Your task to perform on an android device: turn on sleep mode Image 0: 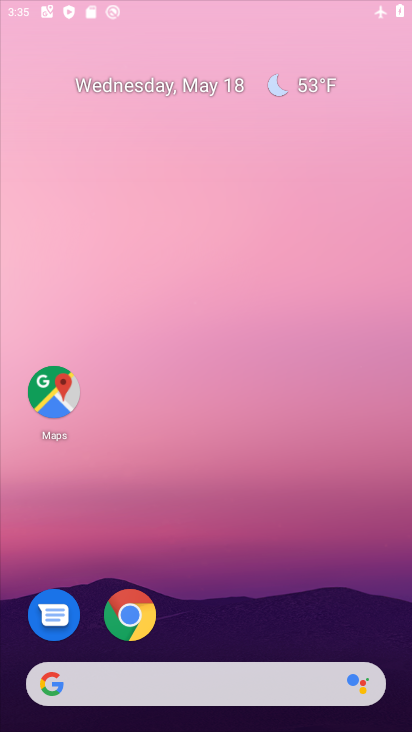
Step 0: drag from (247, 576) to (253, 166)
Your task to perform on an android device: turn on sleep mode Image 1: 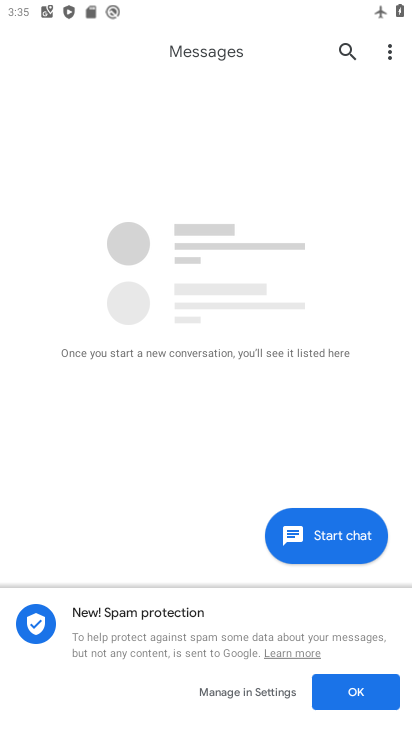
Step 1: press home button
Your task to perform on an android device: turn on sleep mode Image 2: 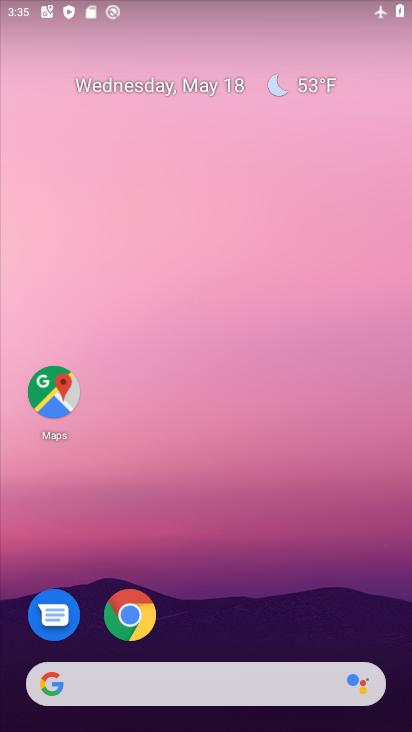
Step 2: drag from (263, 656) to (301, 109)
Your task to perform on an android device: turn on sleep mode Image 3: 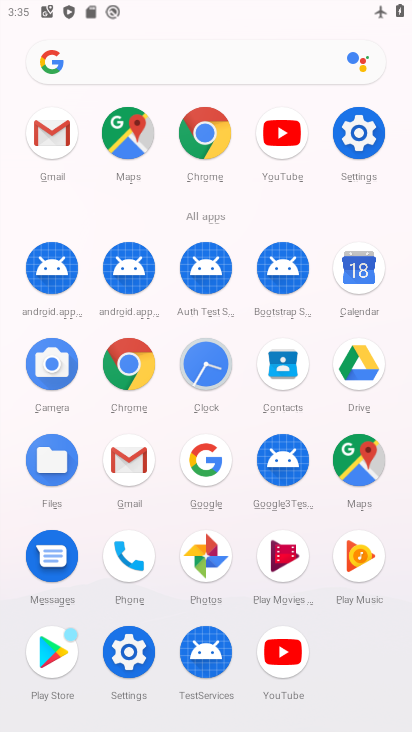
Step 3: click (351, 126)
Your task to perform on an android device: turn on sleep mode Image 4: 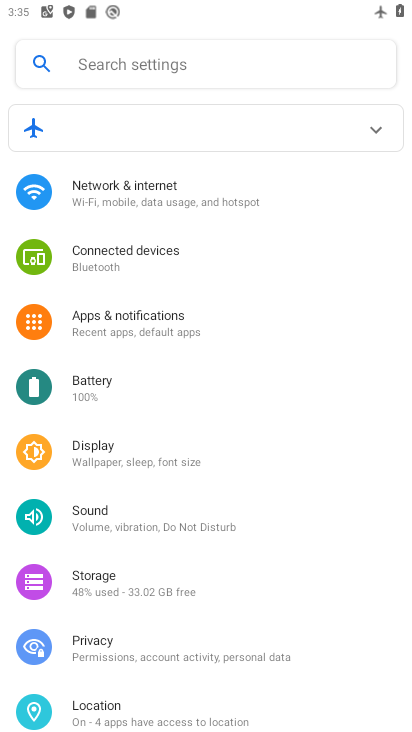
Step 4: click (112, 447)
Your task to perform on an android device: turn on sleep mode Image 5: 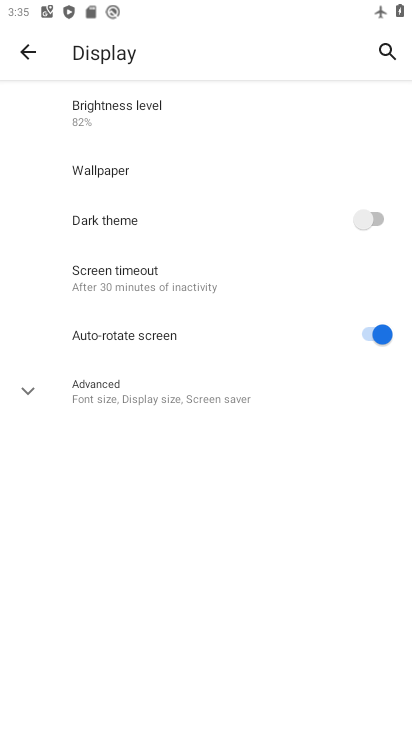
Step 5: click (166, 270)
Your task to perform on an android device: turn on sleep mode Image 6: 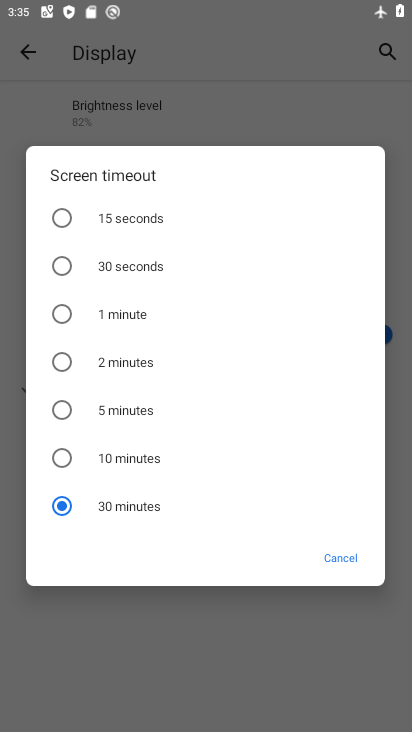
Step 6: task complete